Your task to perform on an android device: Is it going to rain tomorrow? Image 0: 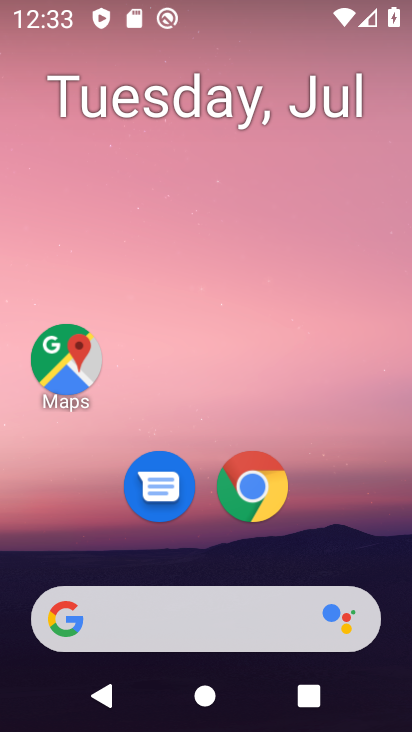
Step 0: click (382, 92)
Your task to perform on an android device: Is it going to rain tomorrow? Image 1: 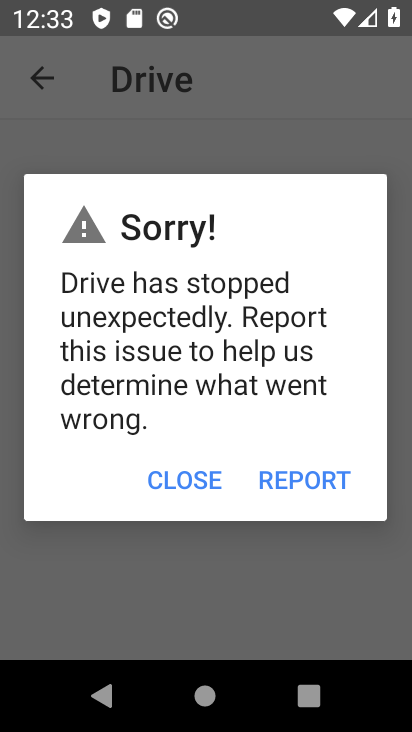
Step 1: press home button
Your task to perform on an android device: Is it going to rain tomorrow? Image 2: 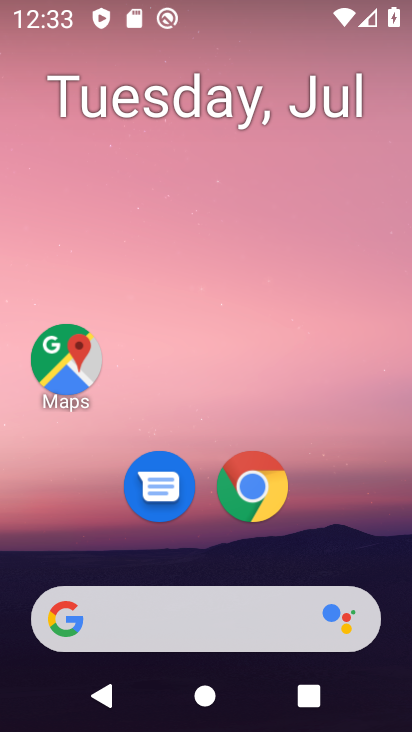
Step 2: click (196, 612)
Your task to perform on an android device: Is it going to rain tomorrow? Image 3: 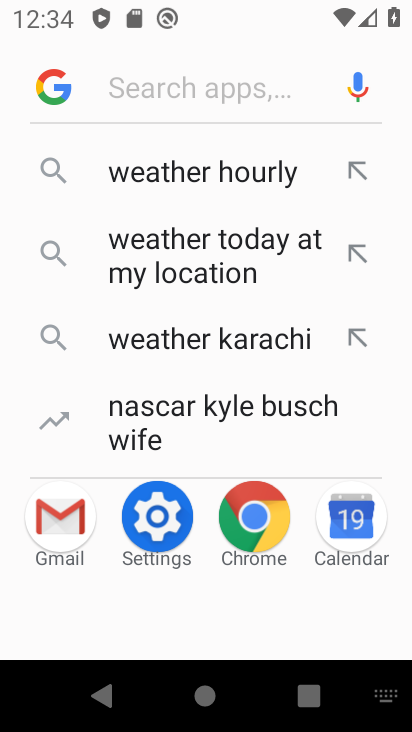
Step 3: type "weather"
Your task to perform on an android device: Is it going to rain tomorrow? Image 4: 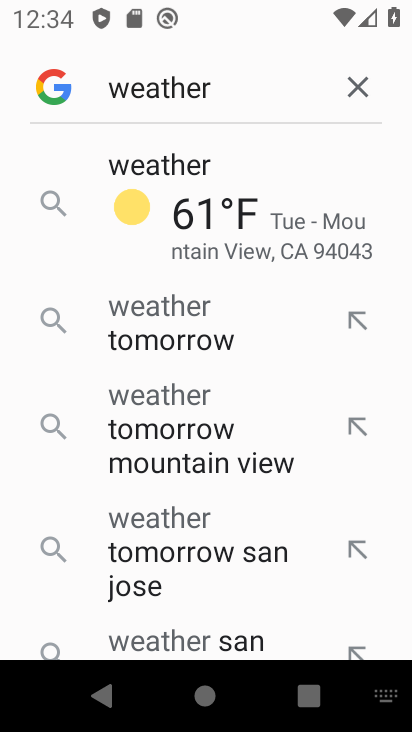
Step 4: click (256, 218)
Your task to perform on an android device: Is it going to rain tomorrow? Image 5: 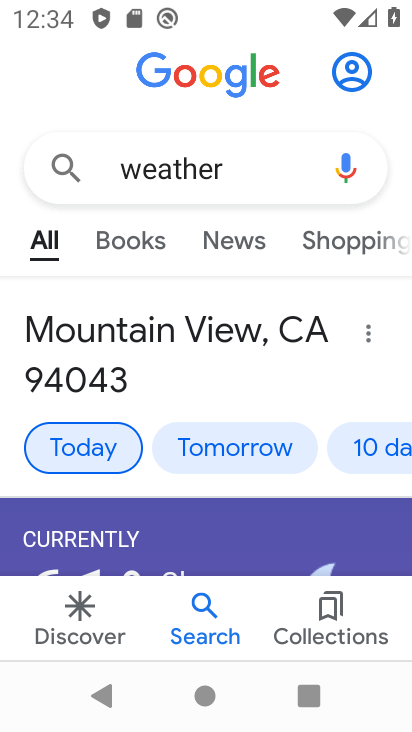
Step 5: click (240, 455)
Your task to perform on an android device: Is it going to rain tomorrow? Image 6: 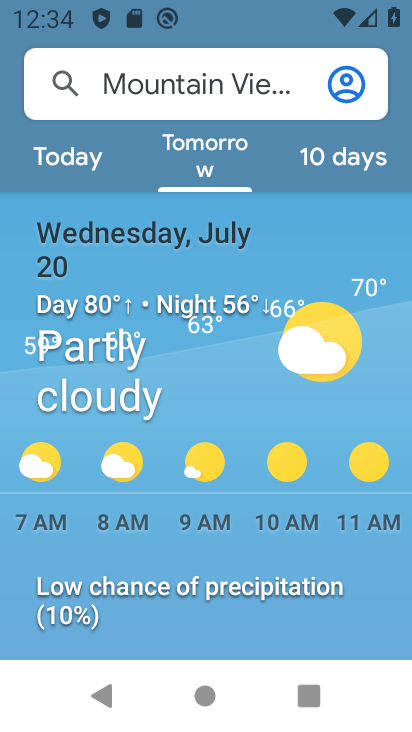
Step 6: task complete